Your task to perform on an android device: Go to settings Image 0: 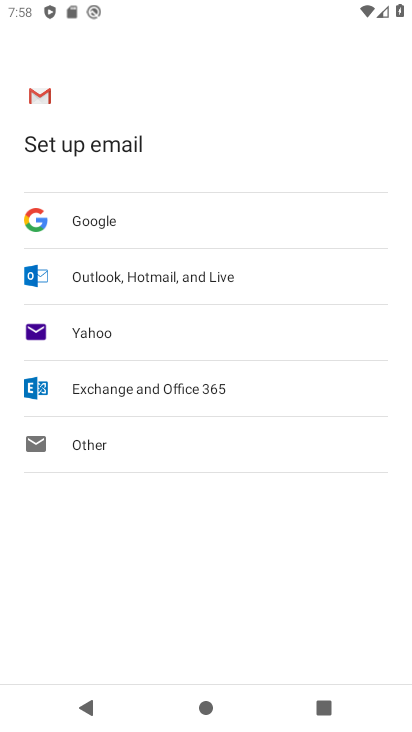
Step 0: press home button
Your task to perform on an android device: Go to settings Image 1: 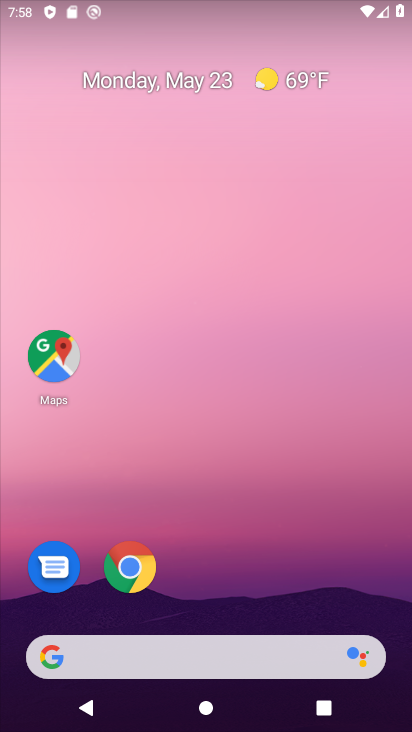
Step 1: drag from (205, 586) to (218, 38)
Your task to perform on an android device: Go to settings Image 2: 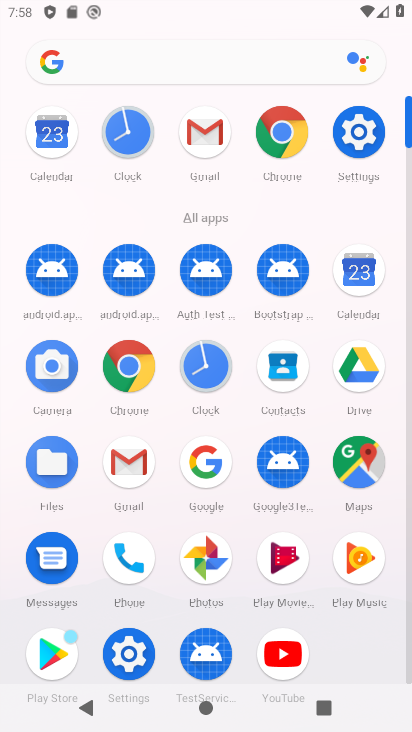
Step 2: click (130, 643)
Your task to perform on an android device: Go to settings Image 3: 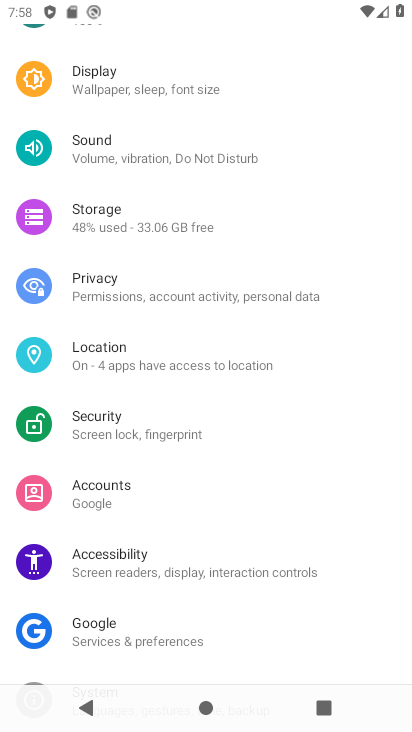
Step 3: task complete